Your task to perform on an android device: toggle notification dots Image 0: 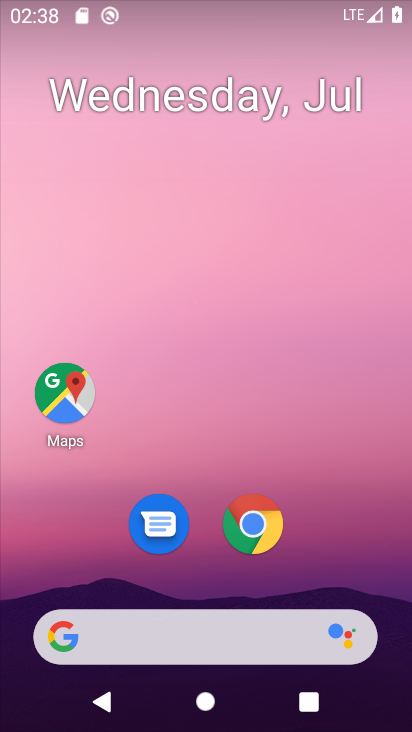
Step 0: drag from (336, 490) to (318, 34)
Your task to perform on an android device: toggle notification dots Image 1: 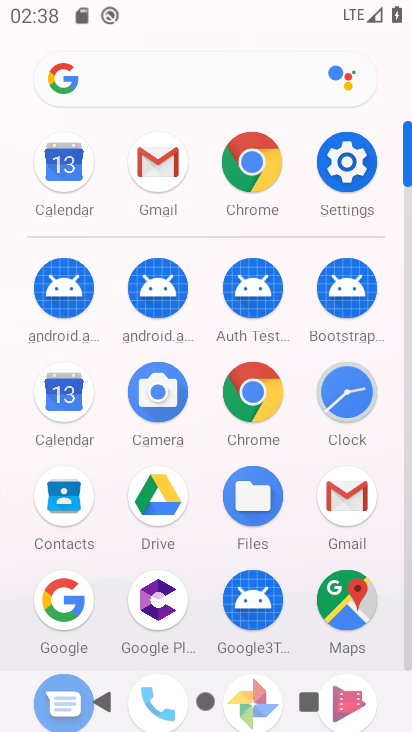
Step 1: click (362, 158)
Your task to perform on an android device: toggle notification dots Image 2: 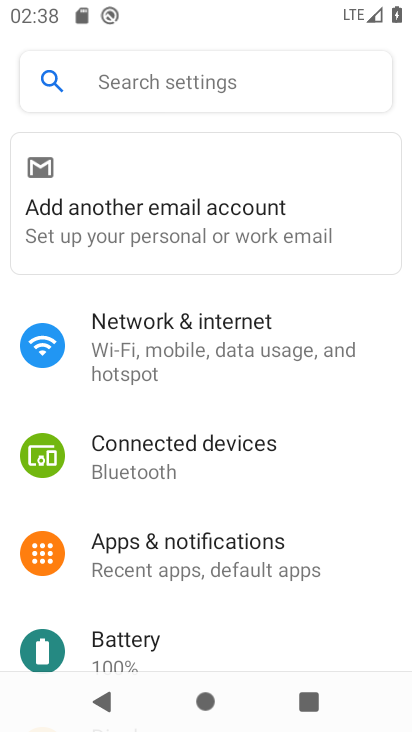
Step 2: click (241, 549)
Your task to perform on an android device: toggle notification dots Image 3: 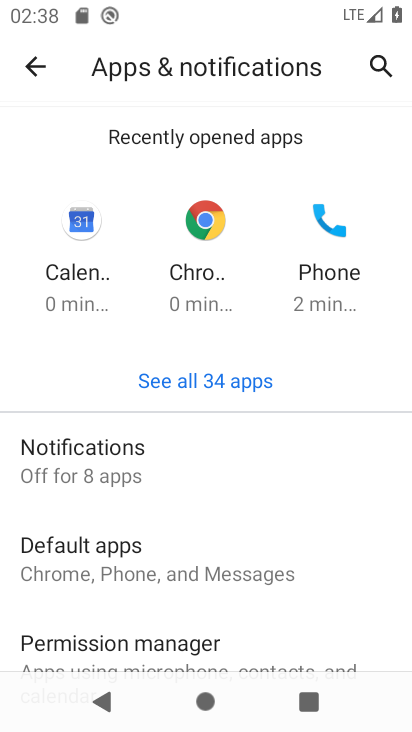
Step 3: click (127, 455)
Your task to perform on an android device: toggle notification dots Image 4: 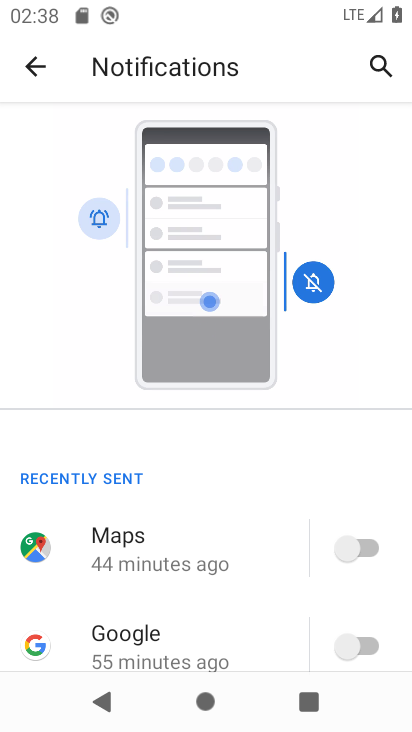
Step 4: drag from (231, 604) to (233, 4)
Your task to perform on an android device: toggle notification dots Image 5: 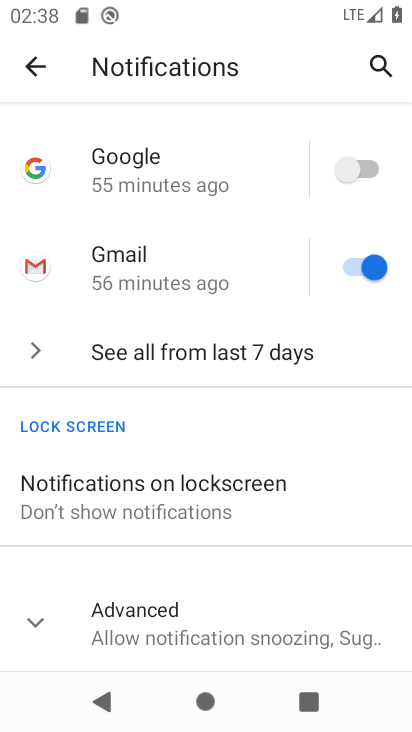
Step 5: click (37, 621)
Your task to perform on an android device: toggle notification dots Image 6: 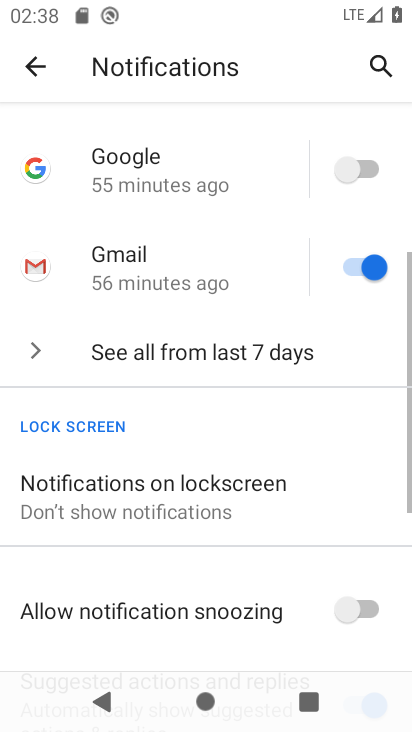
Step 6: drag from (251, 580) to (237, 188)
Your task to perform on an android device: toggle notification dots Image 7: 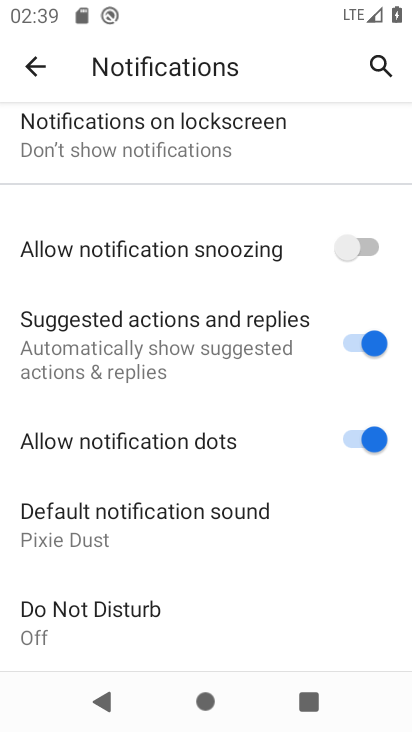
Step 7: click (354, 432)
Your task to perform on an android device: toggle notification dots Image 8: 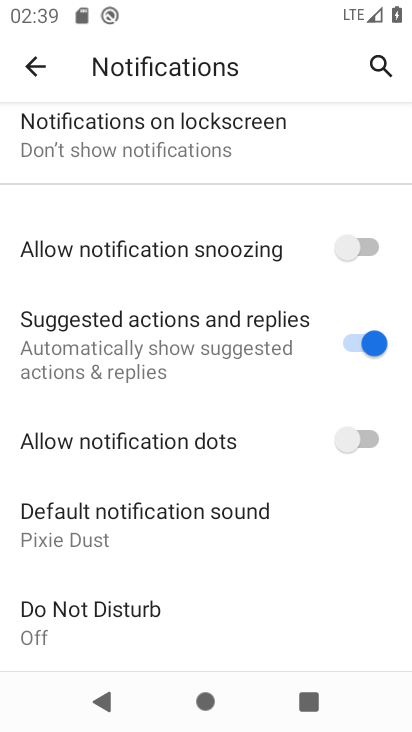
Step 8: task complete